Your task to perform on an android device: Clear the shopping cart on costco.com. Search for macbook air on costco.com, select the first entry, and add it to the cart. Image 0: 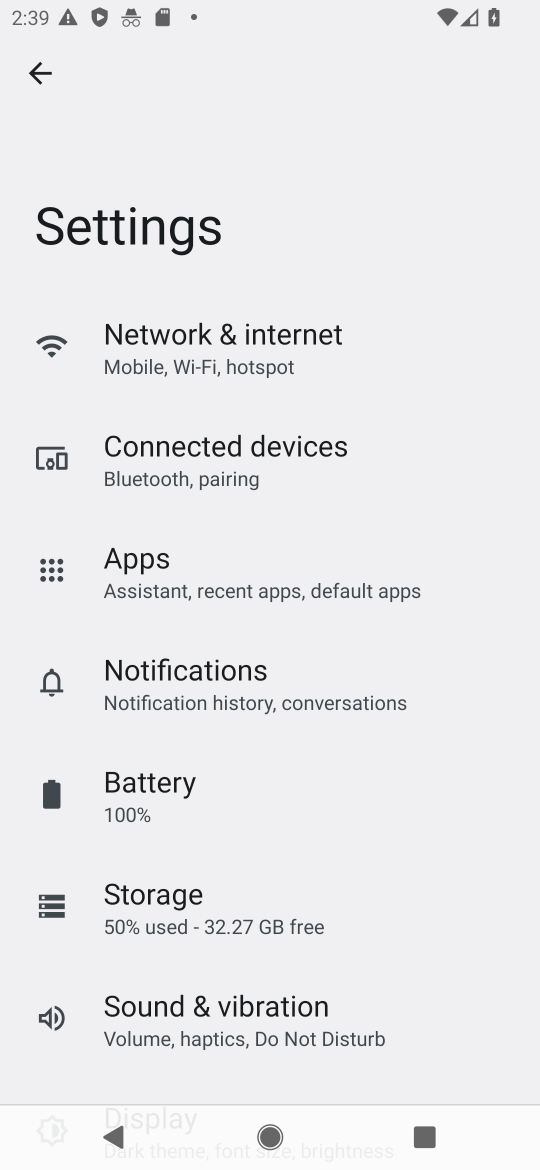
Step 0: press home button
Your task to perform on an android device: Clear the shopping cart on costco.com. Search for macbook air on costco.com, select the first entry, and add it to the cart. Image 1: 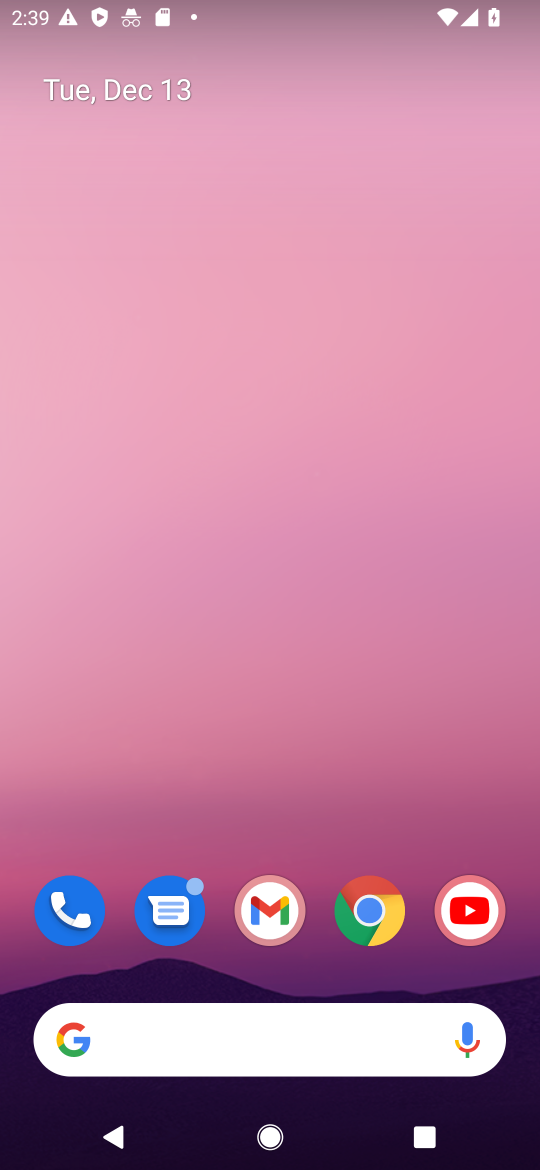
Step 1: click (375, 913)
Your task to perform on an android device: Clear the shopping cart on costco.com. Search for macbook air on costco.com, select the first entry, and add it to the cart. Image 2: 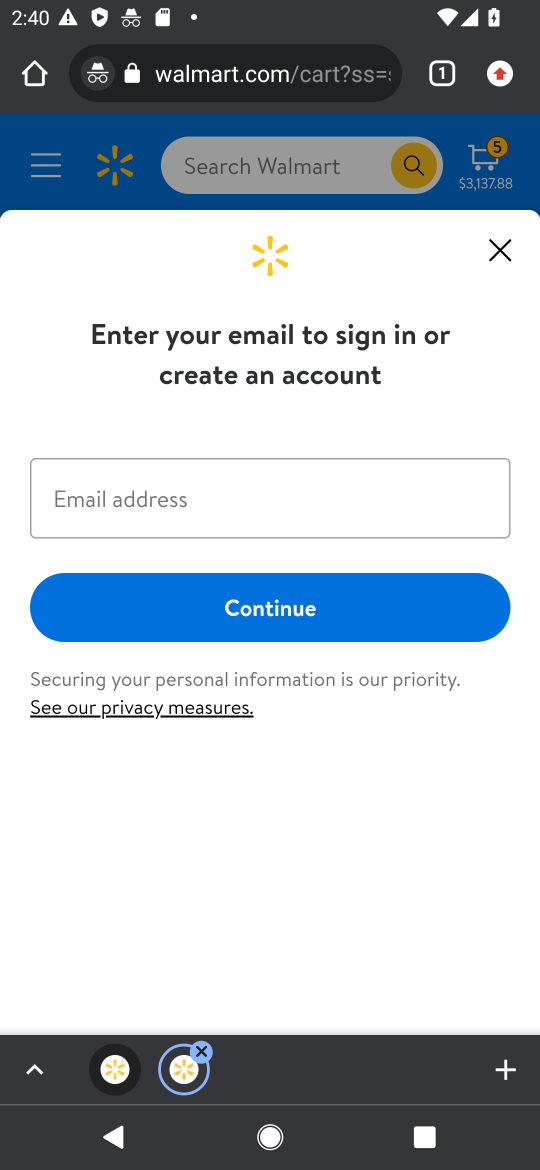
Step 2: task complete